Your task to perform on an android device: When is my next appointment? Image 0: 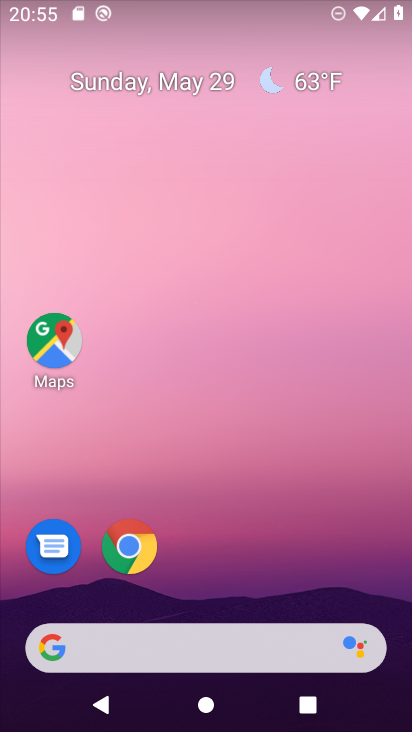
Step 0: press home button
Your task to perform on an android device: When is my next appointment? Image 1: 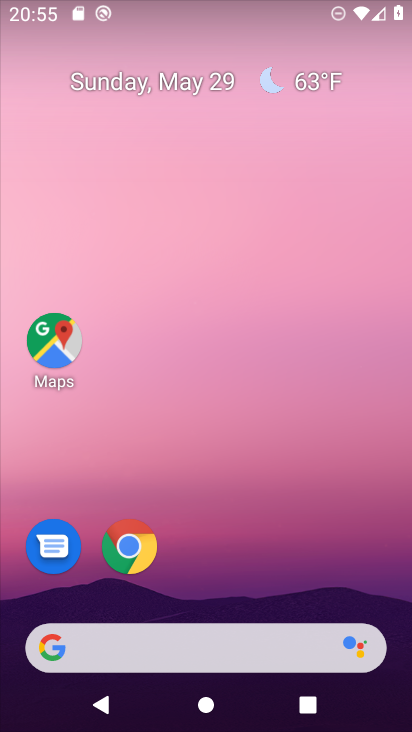
Step 1: drag from (172, 528) to (276, 150)
Your task to perform on an android device: When is my next appointment? Image 2: 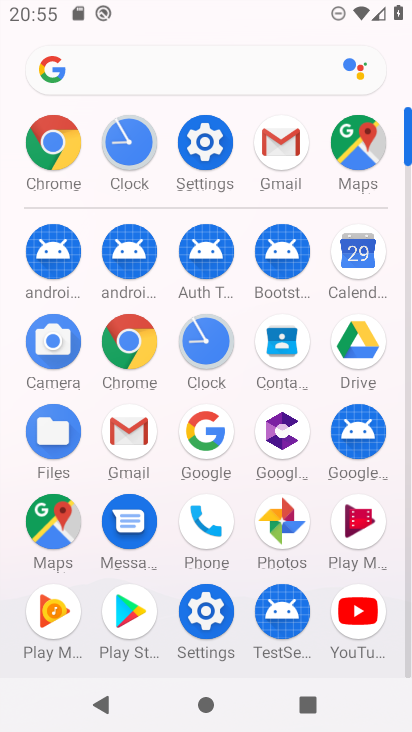
Step 2: click (359, 265)
Your task to perform on an android device: When is my next appointment? Image 3: 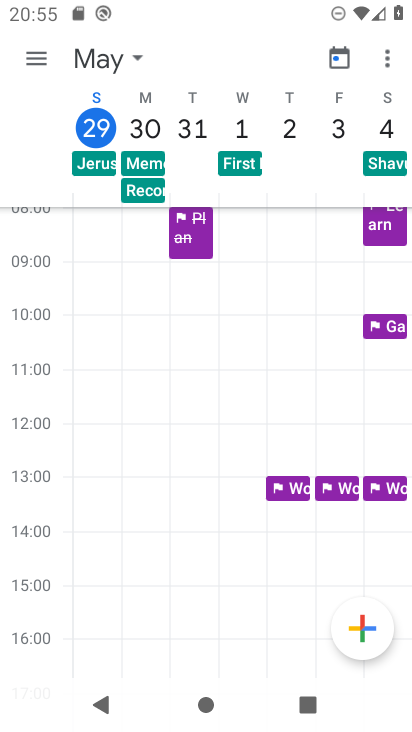
Step 3: click (111, 57)
Your task to perform on an android device: When is my next appointment? Image 4: 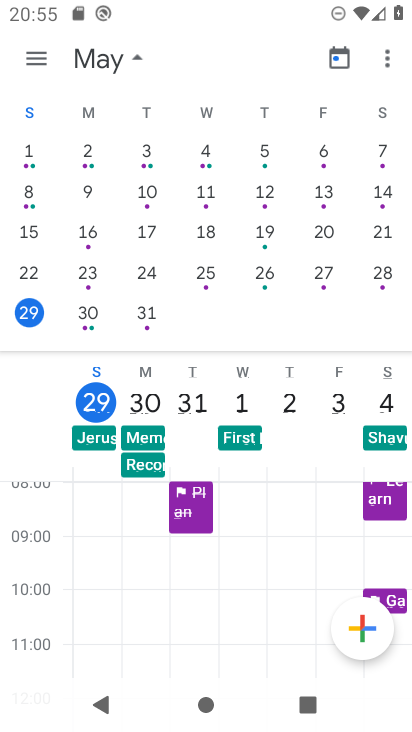
Step 4: click (23, 317)
Your task to perform on an android device: When is my next appointment? Image 5: 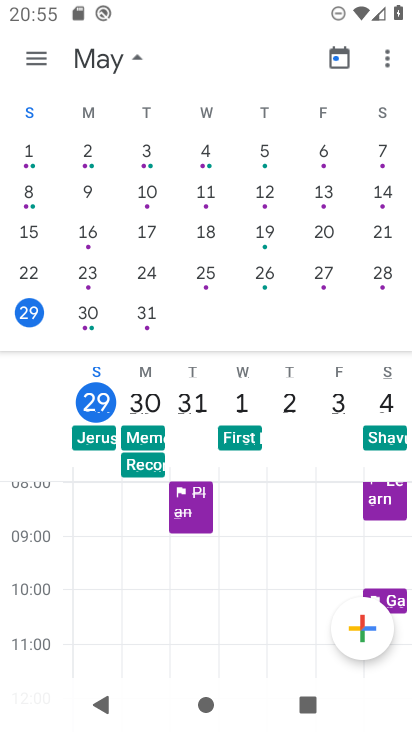
Step 5: click (38, 59)
Your task to perform on an android device: When is my next appointment? Image 6: 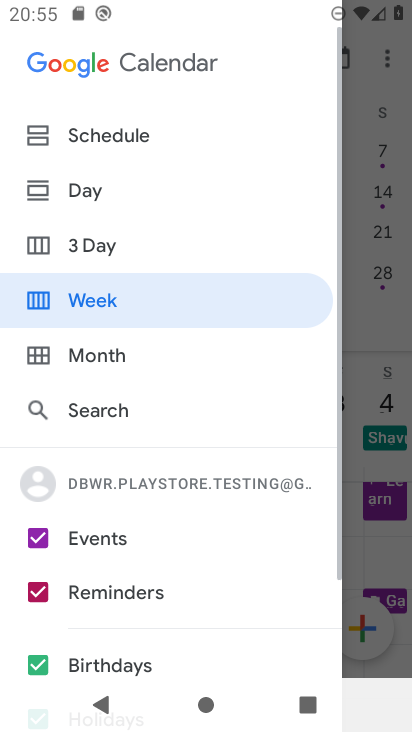
Step 6: click (114, 136)
Your task to perform on an android device: When is my next appointment? Image 7: 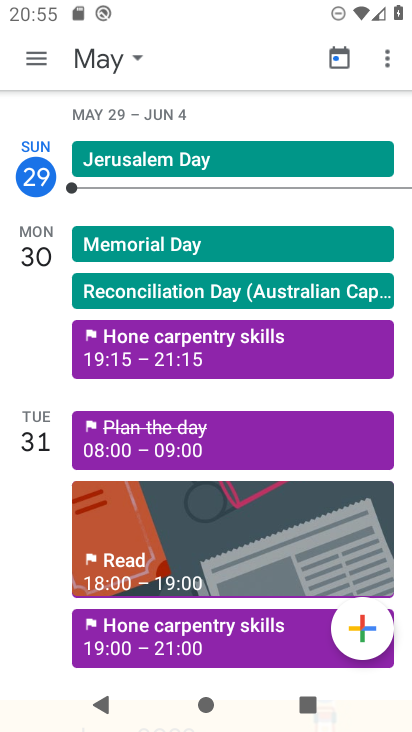
Step 7: click (174, 353)
Your task to perform on an android device: When is my next appointment? Image 8: 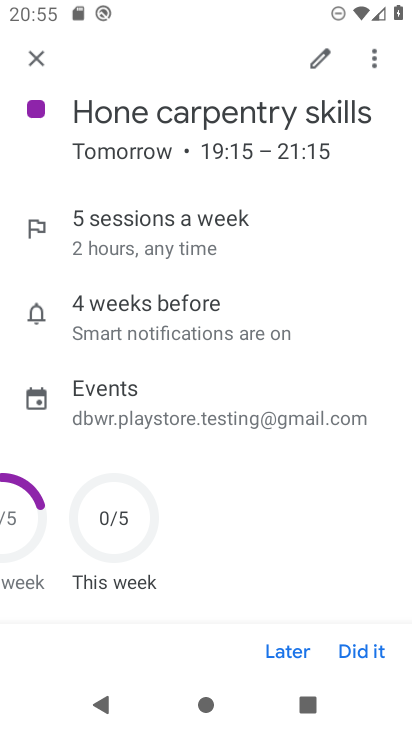
Step 8: task complete